Your task to perform on an android device: turn smart compose on in the gmail app Image 0: 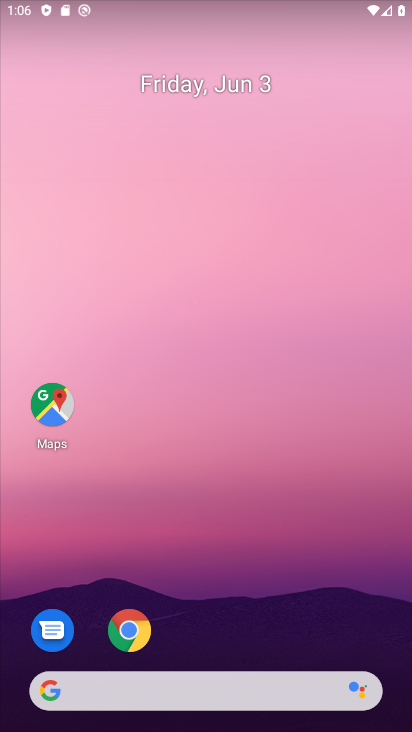
Step 0: drag from (214, 731) to (350, 33)
Your task to perform on an android device: turn smart compose on in the gmail app Image 1: 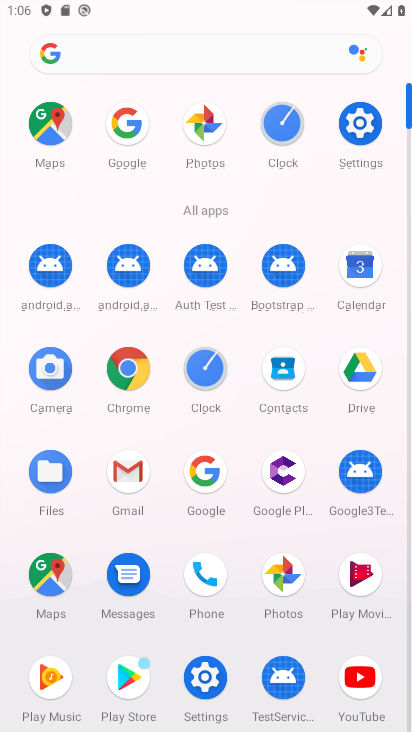
Step 1: click (126, 474)
Your task to perform on an android device: turn smart compose on in the gmail app Image 2: 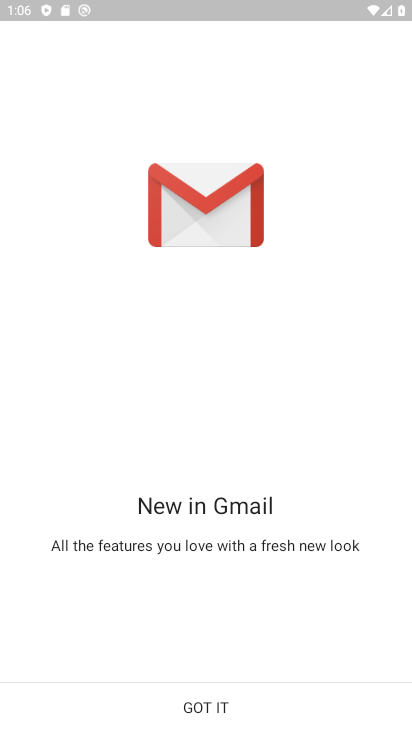
Step 2: click (212, 704)
Your task to perform on an android device: turn smart compose on in the gmail app Image 3: 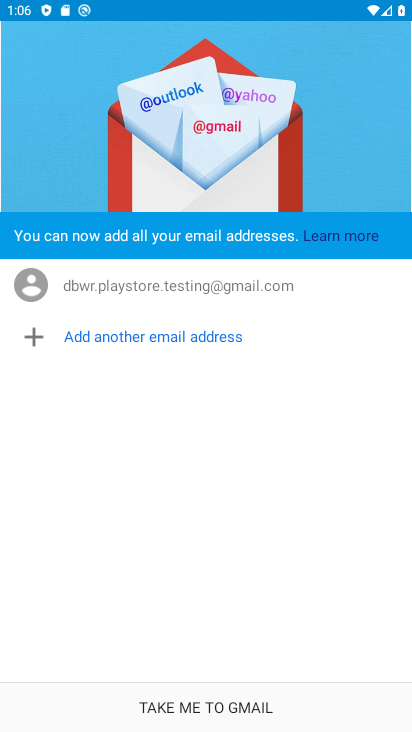
Step 3: click (203, 701)
Your task to perform on an android device: turn smart compose on in the gmail app Image 4: 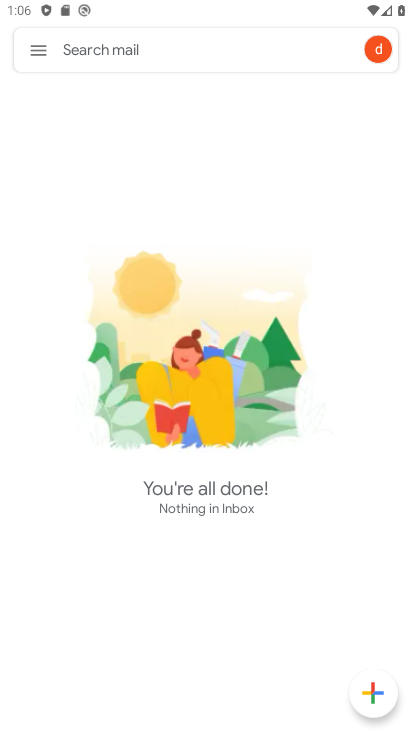
Step 4: click (37, 52)
Your task to perform on an android device: turn smart compose on in the gmail app Image 5: 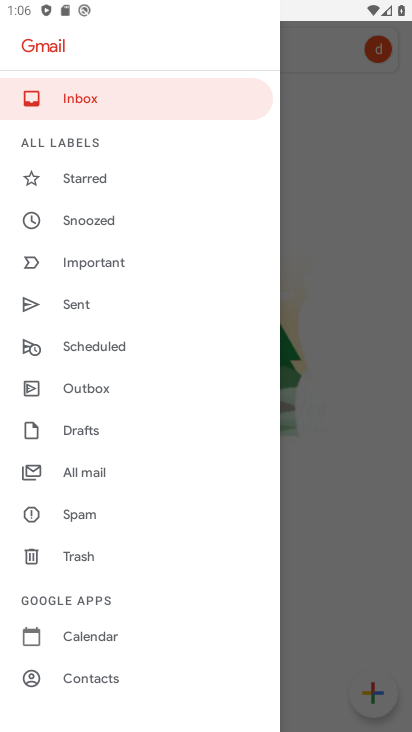
Step 5: drag from (98, 635) to (101, 321)
Your task to perform on an android device: turn smart compose on in the gmail app Image 6: 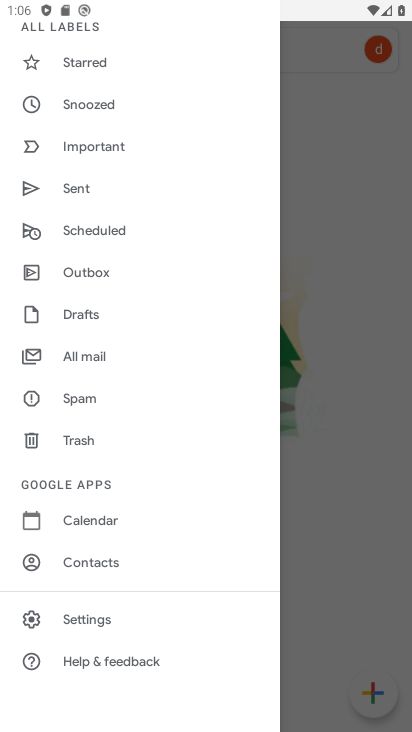
Step 6: click (81, 613)
Your task to perform on an android device: turn smart compose on in the gmail app Image 7: 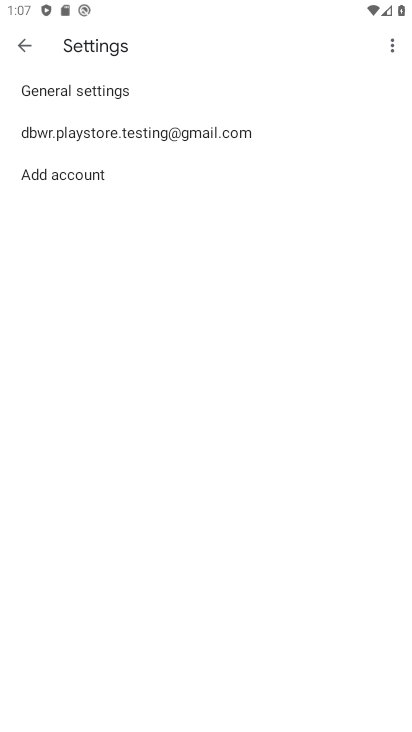
Step 7: click (141, 133)
Your task to perform on an android device: turn smart compose on in the gmail app Image 8: 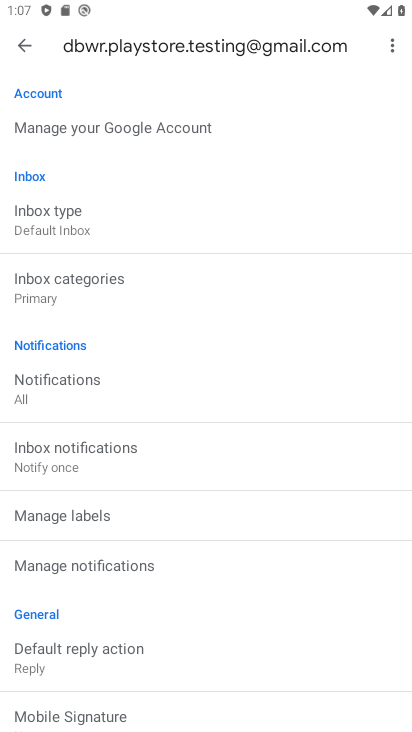
Step 8: task complete